Your task to perform on an android device: change keyboard looks Image 0: 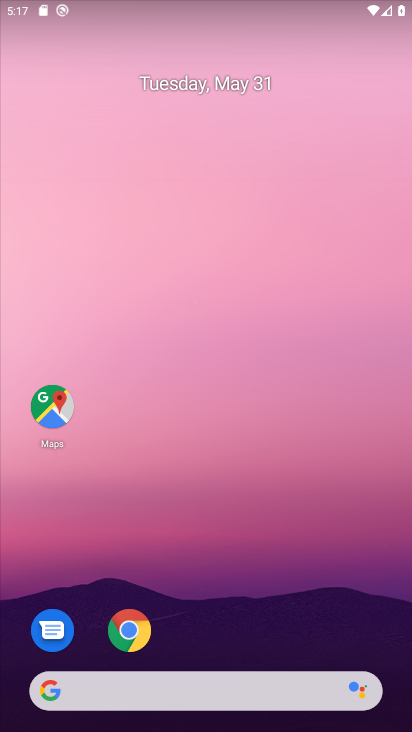
Step 0: drag from (220, 523) to (199, 4)
Your task to perform on an android device: change keyboard looks Image 1: 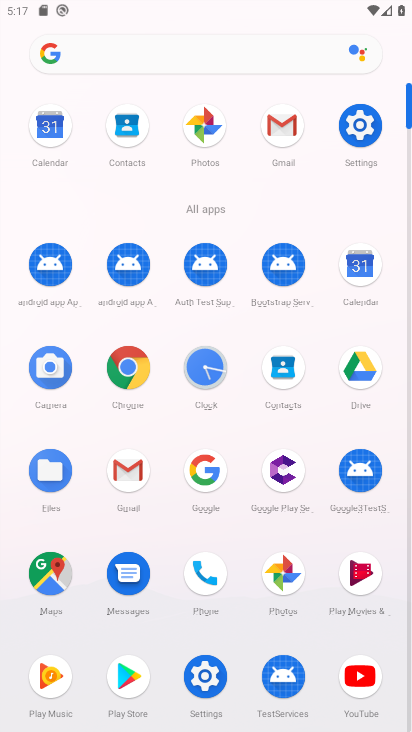
Step 1: click (358, 126)
Your task to perform on an android device: change keyboard looks Image 2: 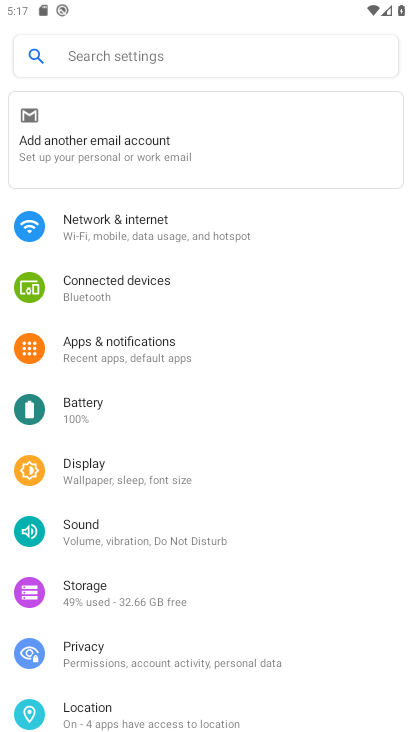
Step 2: drag from (148, 607) to (166, 274)
Your task to perform on an android device: change keyboard looks Image 3: 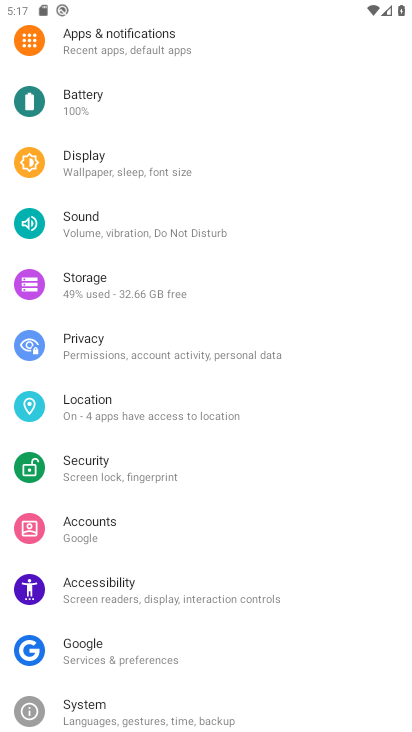
Step 3: click (156, 174)
Your task to perform on an android device: change keyboard looks Image 4: 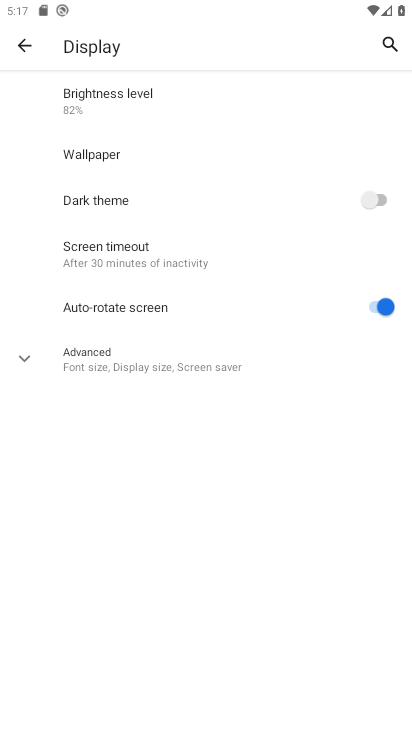
Step 4: click (116, 353)
Your task to perform on an android device: change keyboard looks Image 5: 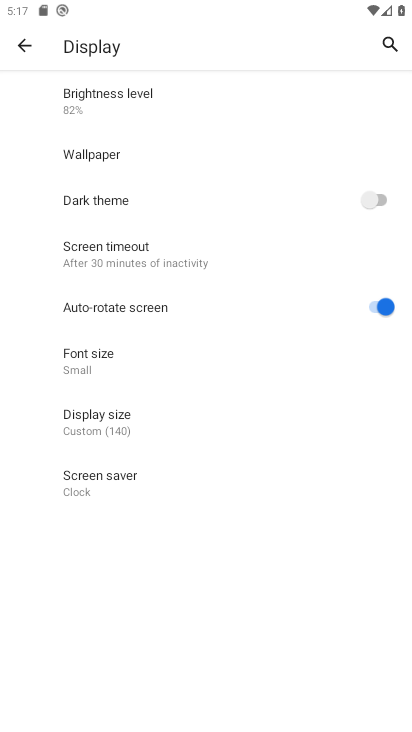
Step 5: task complete